Your task to perform on an android device: check the backup settings in the google photos Image 0: 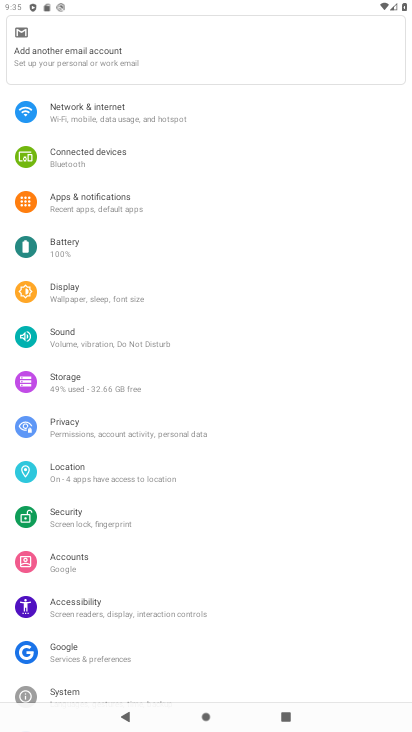
Step 0: press home button
Your task to perform on an android device: check the backup settings in the google photos Image 1: 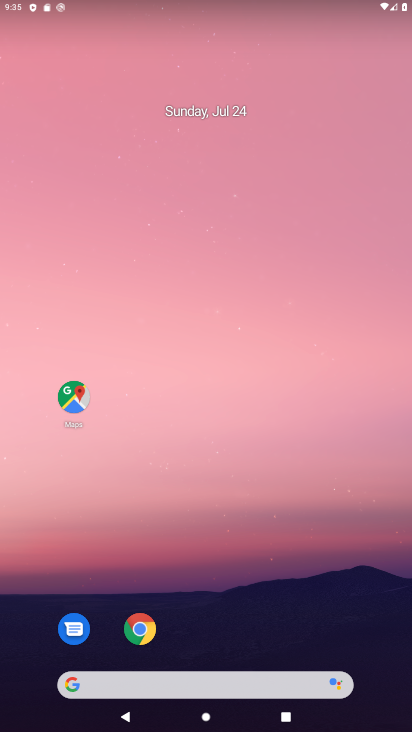
Step 1: drag from (192, 682) to (353, 11)
Your task to perform on an android device: check the backup settings in the google photos Image 2: 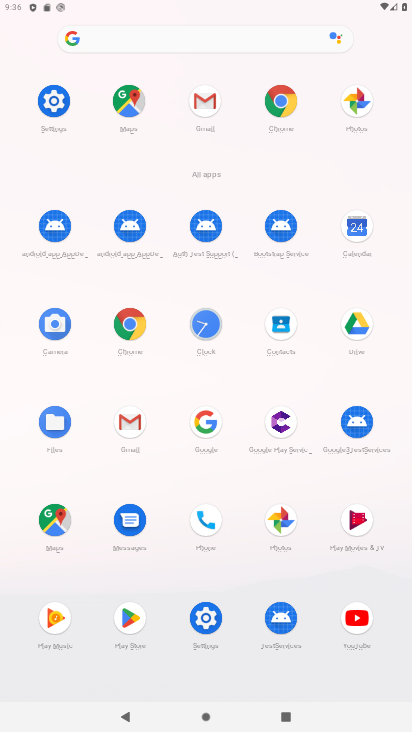
Step 2: click (358, 103)
Your task to perform on an android device: check the backup settings in the google photos Image 3: 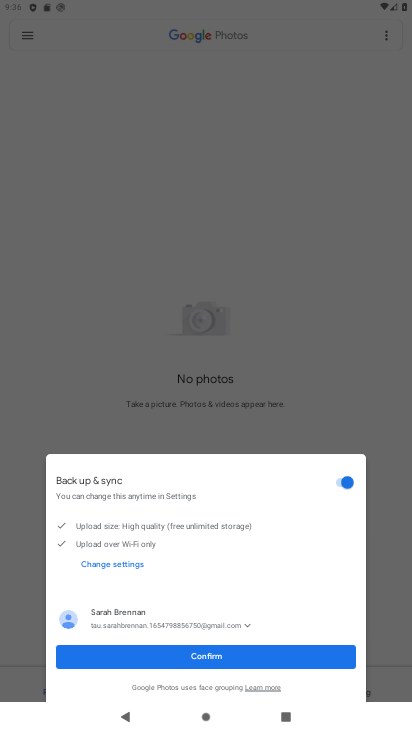
Step 3: click (187, 649)
Your task to perform on an android device: check the backup settings in the google photos Image 4: 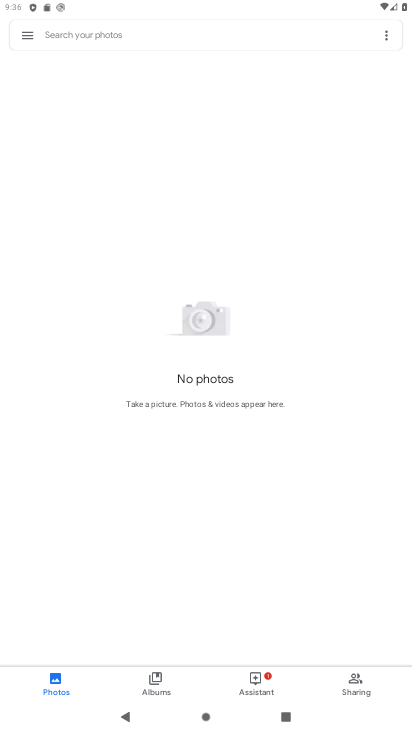
Step 4: click (30, 34)
Your task to perform on an android device: check the backup settings in the google photos Image 5: 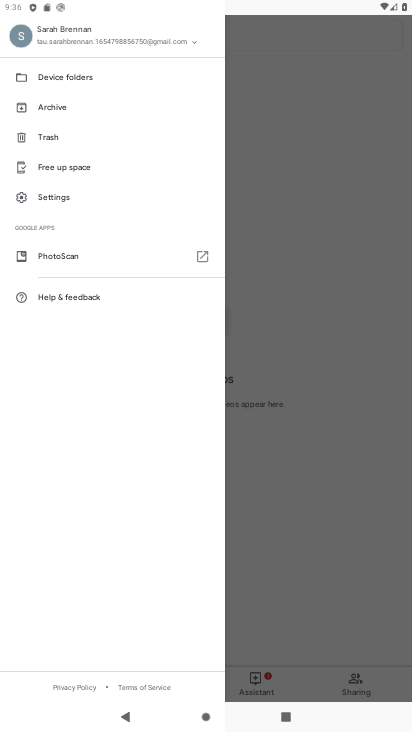
Step 5: click (58, 193)
Your task to perform on an android device: check the backup settings in the google photos Image 6: 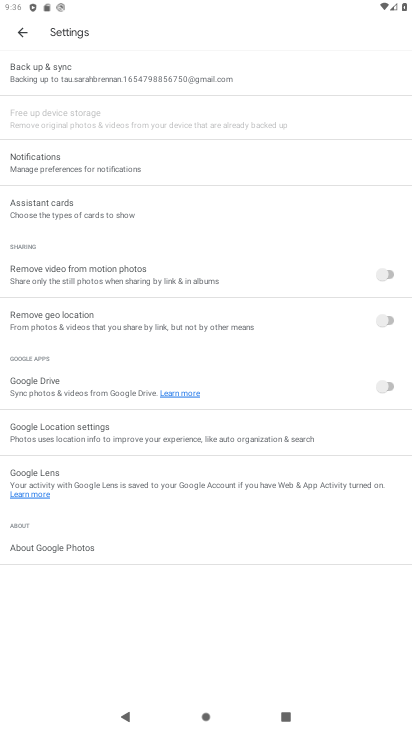
Step 6: click (88, 74)
Your task to perform on an android device: check the backup settings in the google photos Image 7: 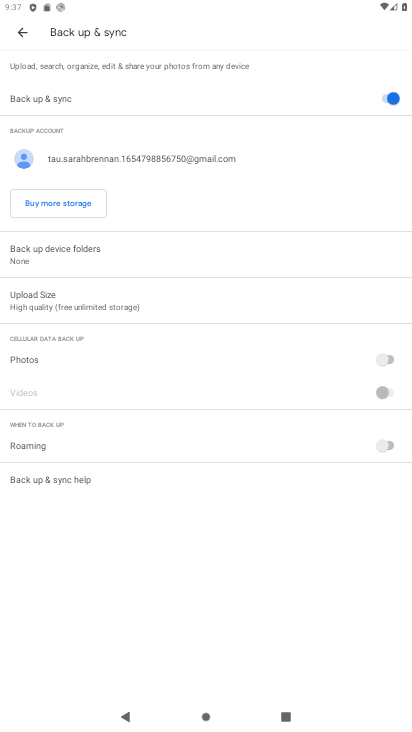
Step 7: task complete